Your task to perform on an android device: Open my contact list Image 0: 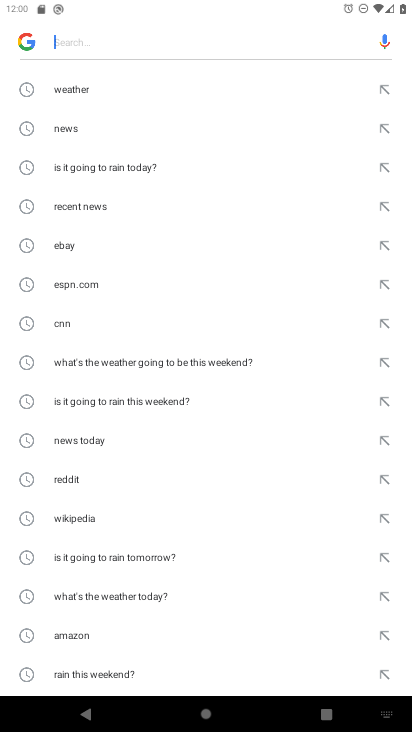
Step 0: press home button
Your task to perform on an android device: Open my contact list Image 1: 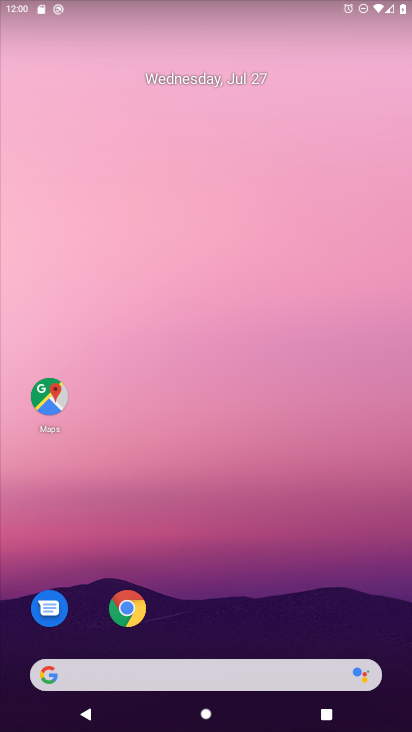
Step 1: drag from (273, 573) to (240, 14)
Your task to perform on an android device: Open my contact list Image 2: 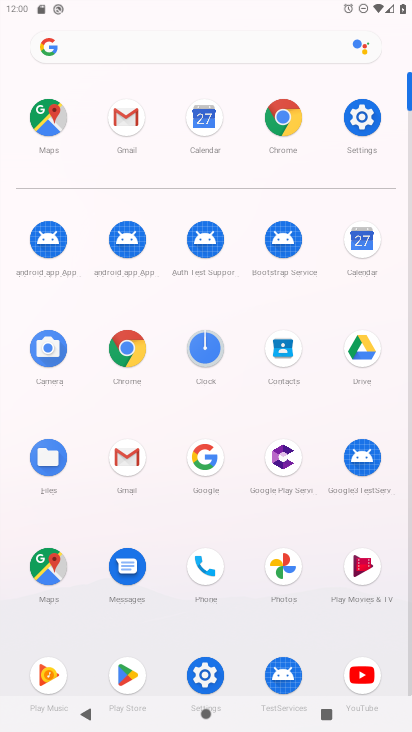
Step 2: click (289, 353)
Your task to perform on an android device: Open my contact list Image 3: 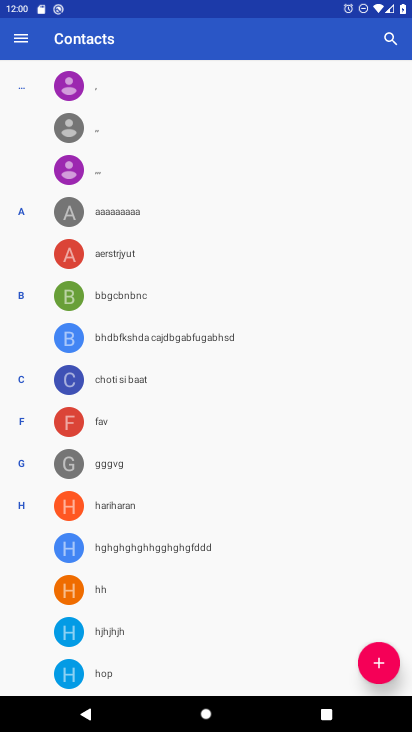
Step 3: task complete